Your task to perform on an android device: turn off improve location accuracy Image 0: 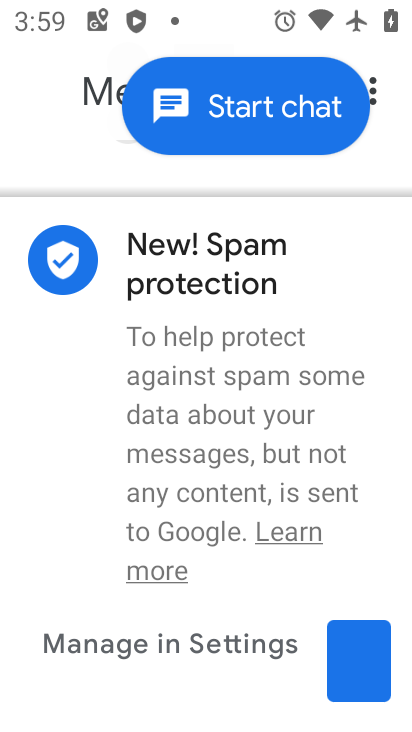
Step 0: press home button
Your task to perform on an android device: turn off improve location accuracy Image 1: 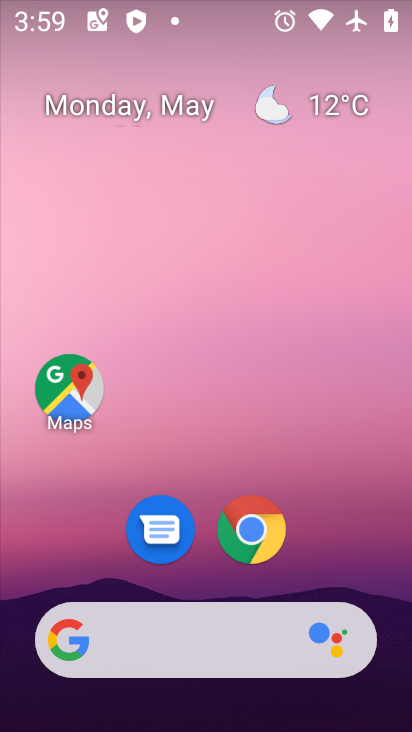
Step 1: drag from (342, 578) to (285, 65)
Your task to perform on an android device: turn off improve location accuracy Image 2: 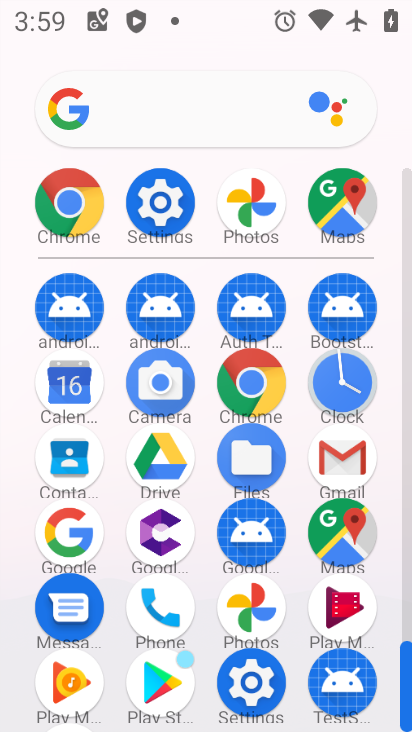
Step 2: click (159, 207)
Your task to perform on an android device: turn off improve location accuracy Image 3: 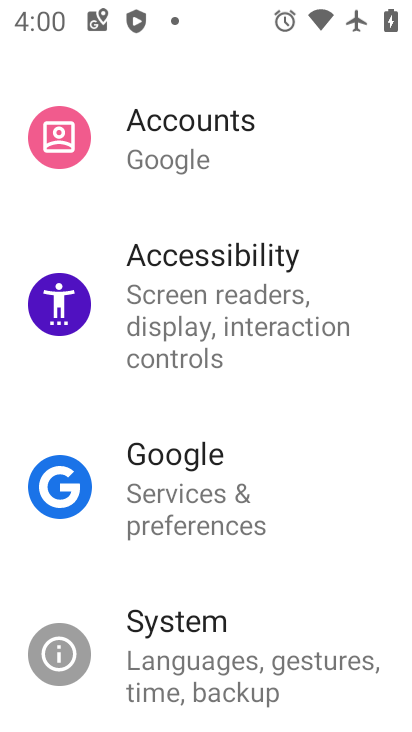
Step 3: drag from (214, 354) to (223, 500)
Your task to perform on an android device: turn off improve location accuracy Image 4: 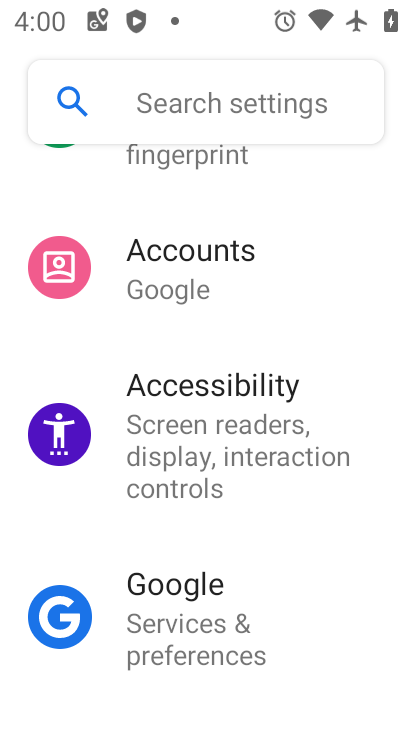
Step 4: drag from (215, 380) to (215, 536)
Your task to perform on an android device: turn off improve location accuracy Image 5: 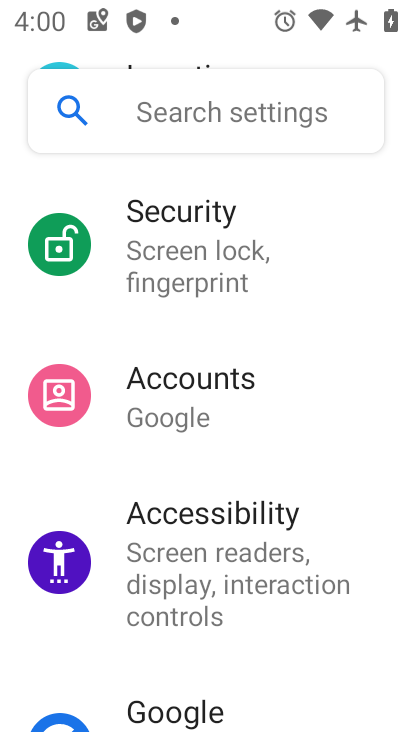
Step 5: drag from (176, 377) to (178, 555)
Your task to perform on an android device: turn off improve location accuracy Image 6: 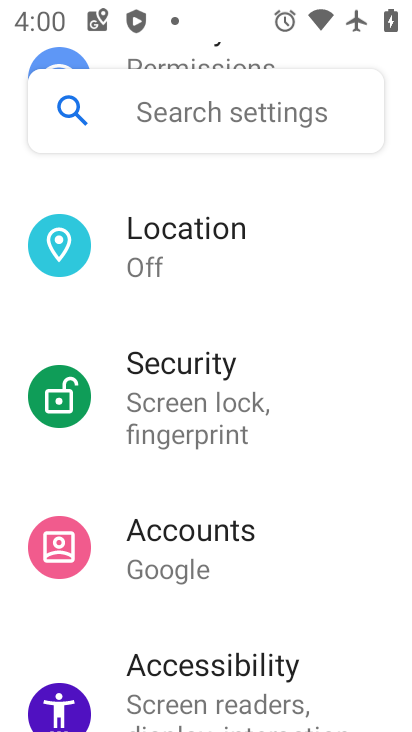
Step 6: click (181, 241)
Your task to perform on an android device: turn off improve location accuracy Image 7: 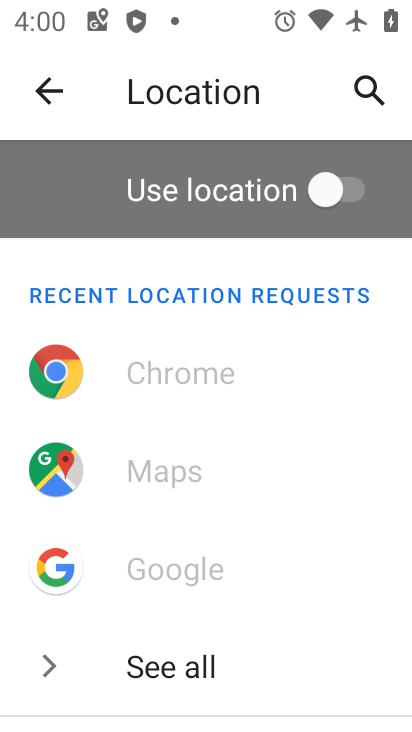
Step 7: task complete